Your task to perform on an android device: open app "Indeed Job Search" (install if not already installed) Image 0: 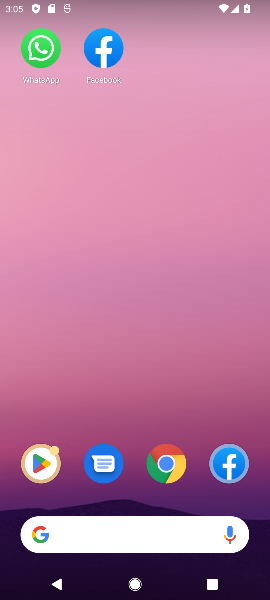
Step 0: drag from (146, 539) to (76, 89)
Your task to perform on an android device: open app "Indeed Job Search" (install if not already installed) Image 1: 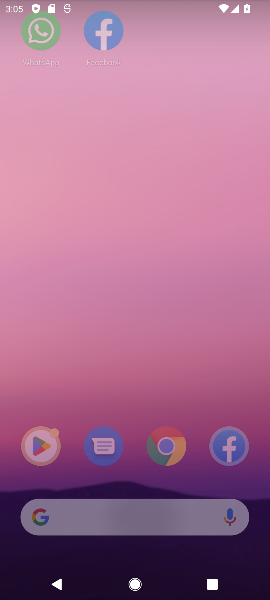
Step 1: drag from (121, 449) to (120, 51)
Your task to perform on an android device: open app "Indeed Job Search" (install if not already installed) Image 2: 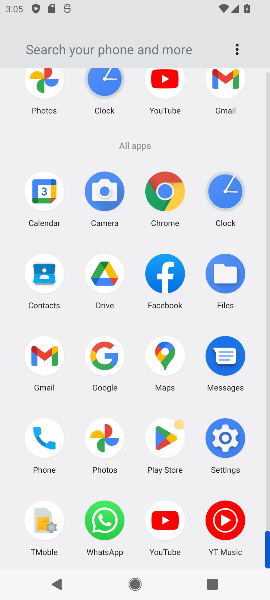
Step 2: click (167, 440)
Your task to perform on an android device: open app "Indeed Job Search" (install if not already installed) Image 3: 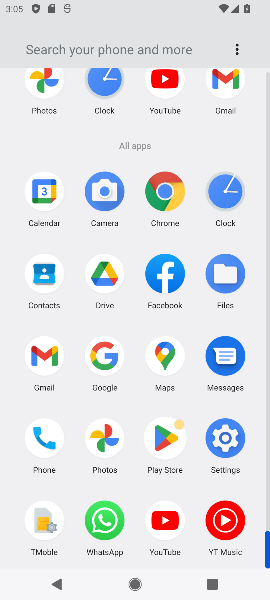
Step 3: click (167, 440)
Your task to perform on an android device: open app "Indeed Job Search" (install if not already installed) Image 4: 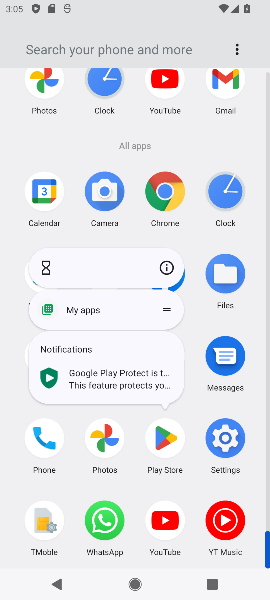
Step 4: click (167, 440)
Your task to perform on an android device: open app "Indeed Job Search" (install if not already installed) Image 5: 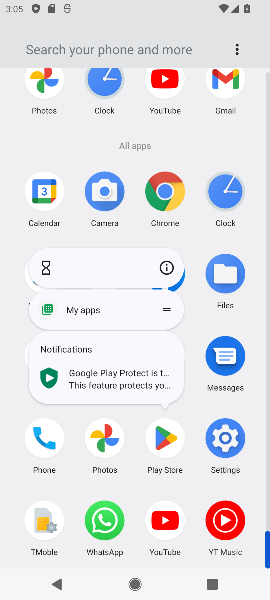
Step 5: click (167, 439)
Your task to perform on an android device: open app "Indeed Job Search" (install if not already installed) Image 6: 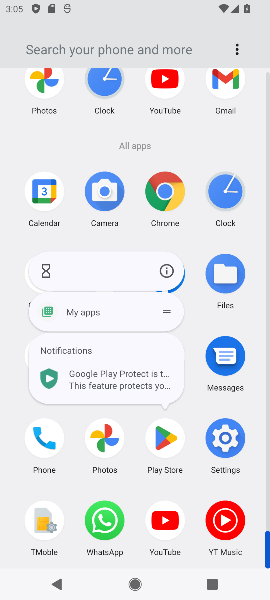
Step 6: click (168, 439)
Your task to perform on an android device: open app "Indeed Job Search" (install if not already installed) Image 7: 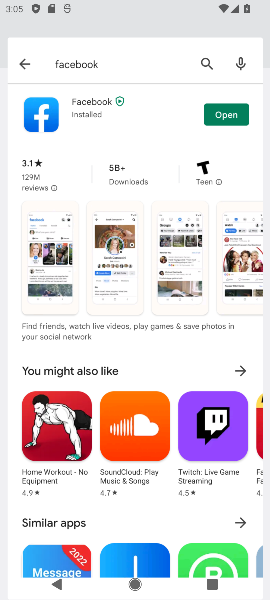
Step 7: click (168, 439)
Your task to perform on an android device: open app "Indeed Job Search" (install if not already installed) Image 8: 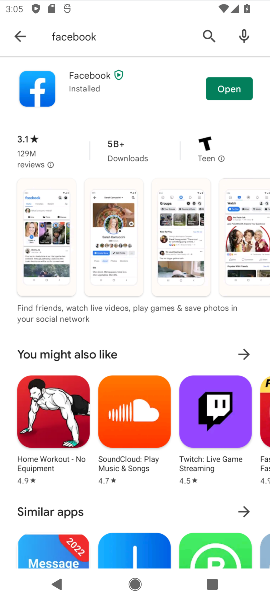
Step 8: click (168, 438)
Your task to perform on an android device: open app "Indeed Job Search" (install if not already installed) Image 9: 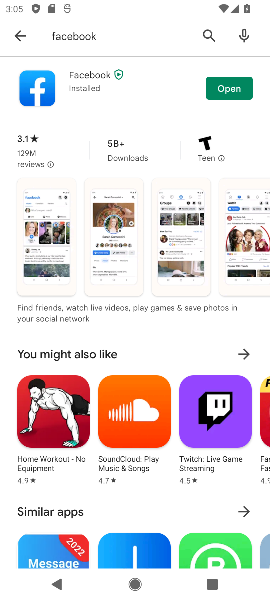
Step 9: click (168, 438)
Your task to perform on an android device: open app "Indeed Job Search" (install if not already installed) Image 10: 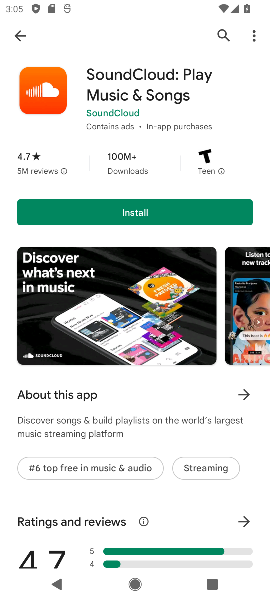
Step 10: click (16, 36)
Your task to perform on an android device: open app "Indeed Job Search" (install if not already installed) Image 11: 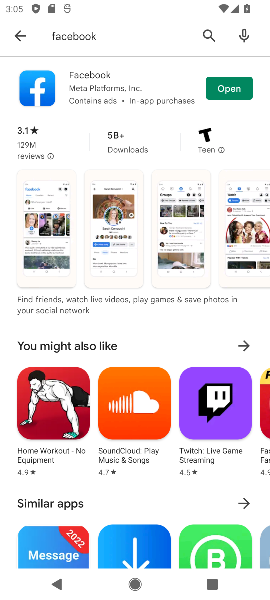
Step 11: click (207, 33)
Your task to perform on an android device: open app "Indeed Job Search" (install if not already installed) Image 12: 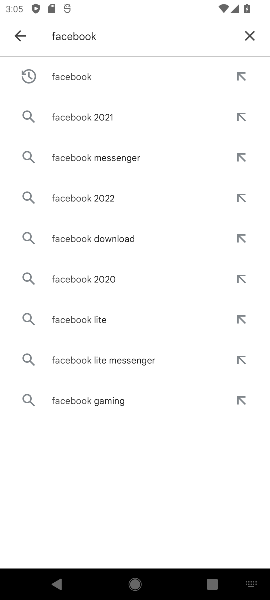
Step 12: click (251, 32)
Your task to perform on an android device: open app "Indeed Job Search" (install if not already installed) Image 13: 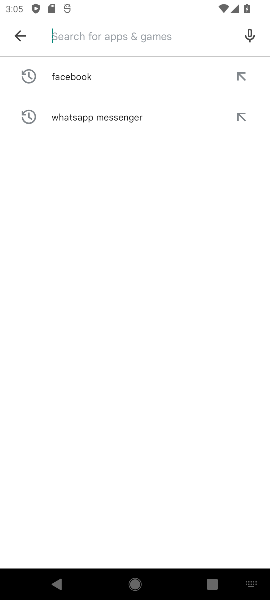
Step 13: type "Indeed job search"
Your task to perform on an android device: open app "Indeed Job Search" (install if not already installed) Image 14: 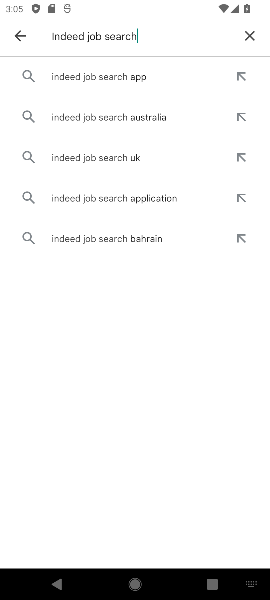
Step 14: click (116, 74)
Your task to perform on an android device: open app "Indeed Job Search" (install if not already installed) Image 15: 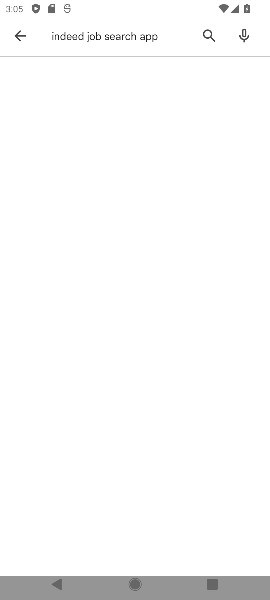
Step 15: click (115, 74)
Your task to perform on an android device: open app "Indeed Job Search" (install if not already installed) Image 16: 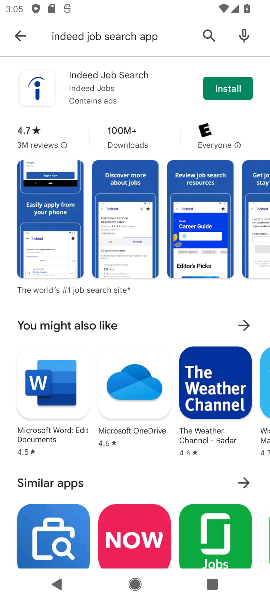
Step 16: click (225, 91)
Your task to perform on an android device: open app "Indeed Job Search" (install if not already installed) Image 17: 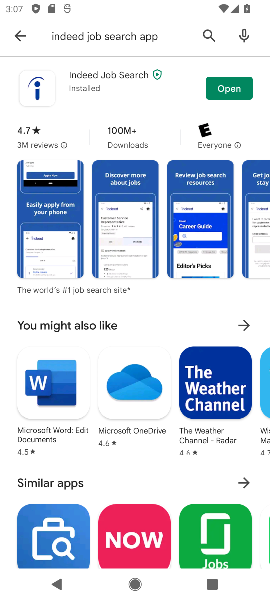
Step 17: click (232, 90)
Your task to perform on an android device: open app "Indeed Job Search" (install if not already installed) Image 18: 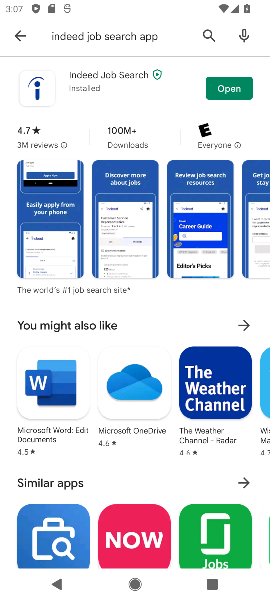
Step 18: click (232, 90)
Your task to perform on an android device: open app "Indeed Job Search" (install if not already installed) Image 19: 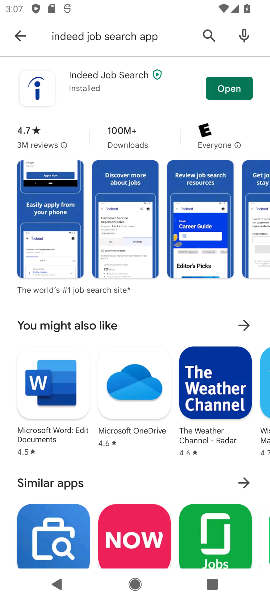
Step 19: click (232, 90)
Your task to perform on an android device: open app "Indeed Job Search" (install if not already installed) Image 20: 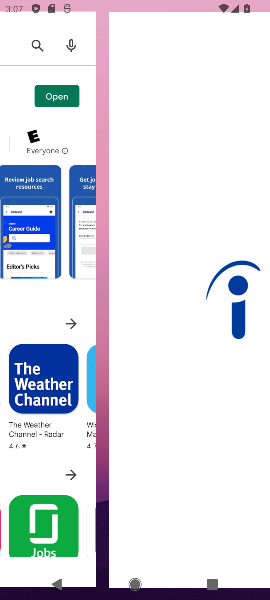
Step 20: click (232, 90)
Your task to perform on an android device: open app "Indeed Job Search" (install if not already installed) Image 21: 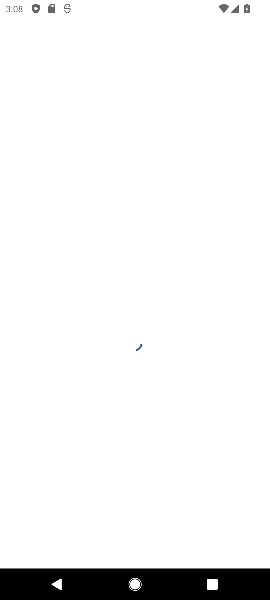
Step 21: task complete